Your task to perform on an android device: What's the news in Barbados? Image 0: 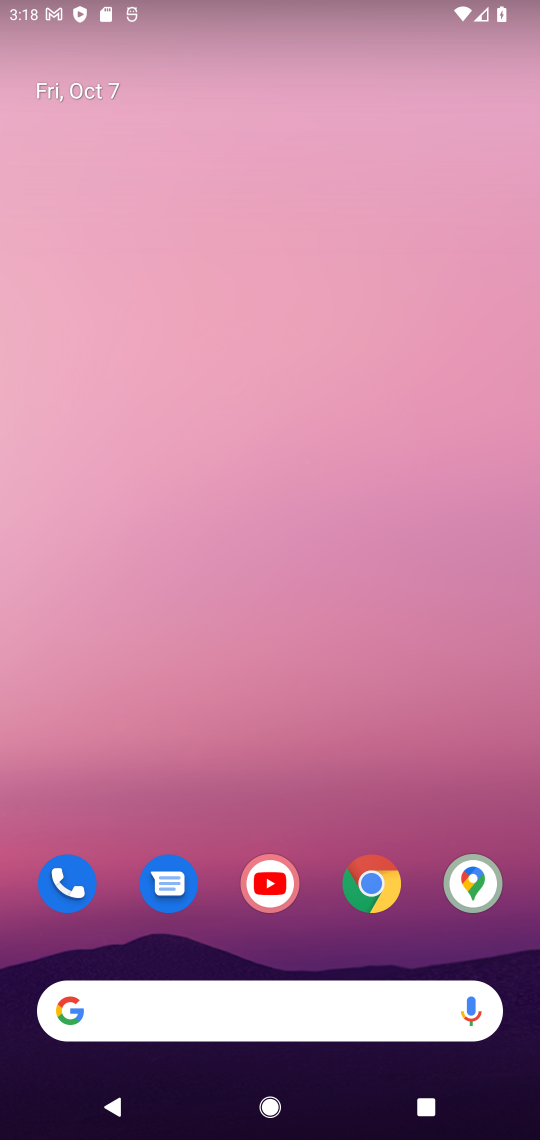
Step 0: click (367, 875)
Your task to perform on an android device: What's the news in Barbados? Image 1: 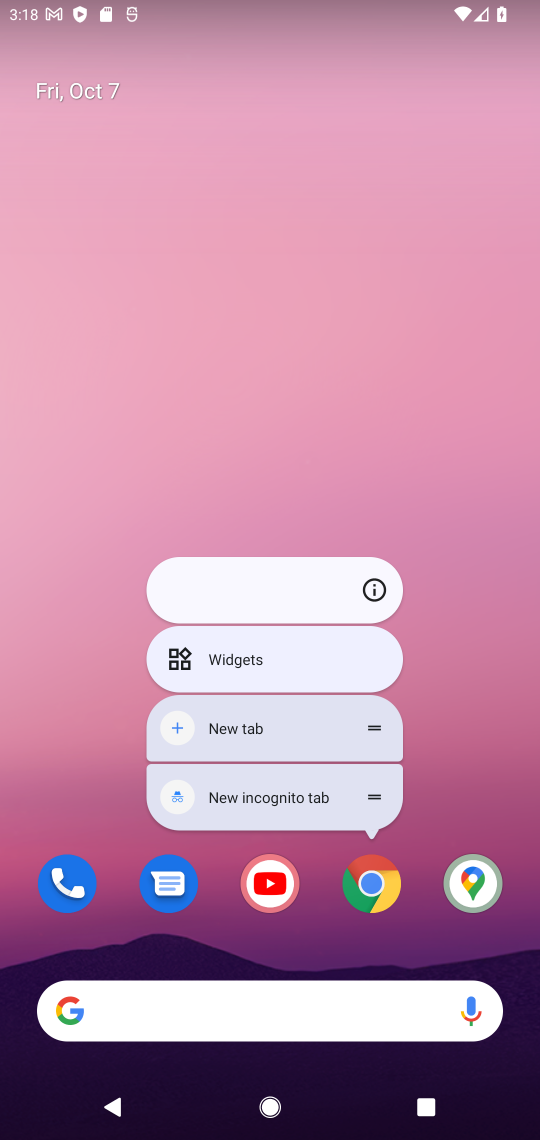
Step 1: click (367, 875)
Your task to perform on an android device: What's the news in Barbados? Image 2: 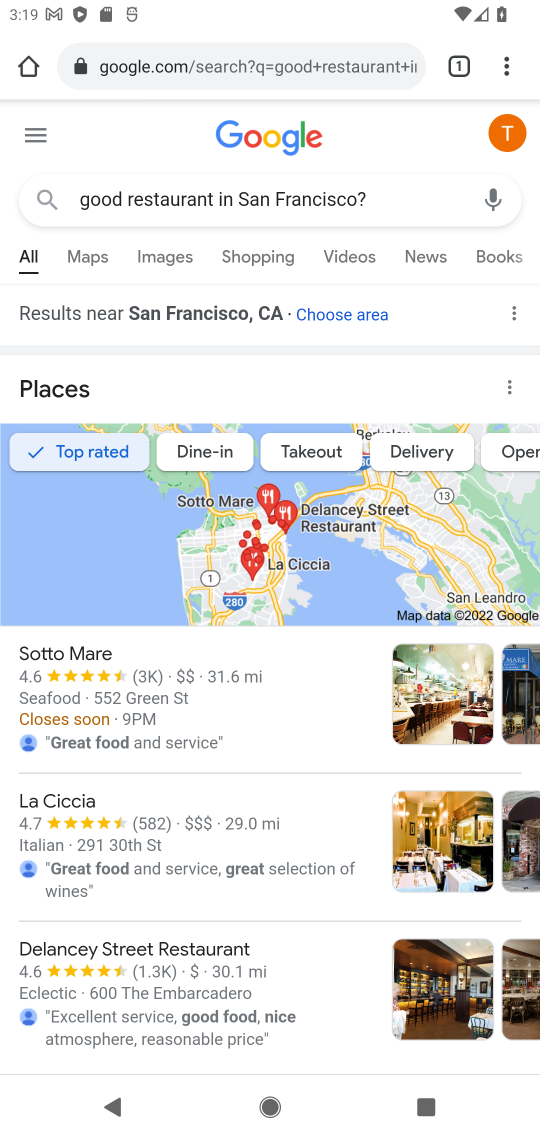
Step 2: click (384, 209)
Your task to perform on an android device: What's the news in Barbados? Image 3: 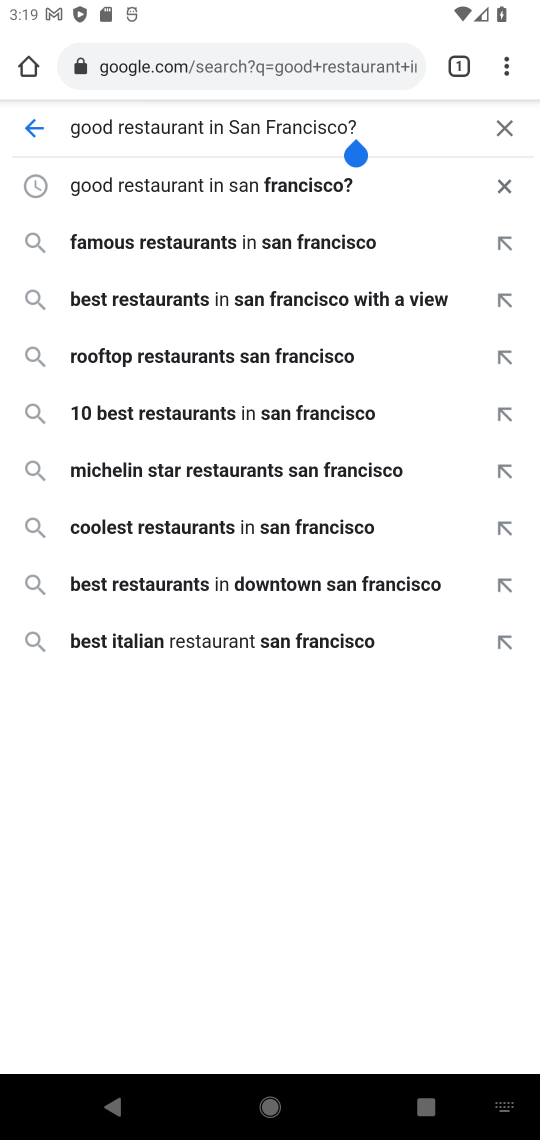
Step 3: click (510, 130)
Your task to perform on an android device: What's the news in Barbados? Image 4: 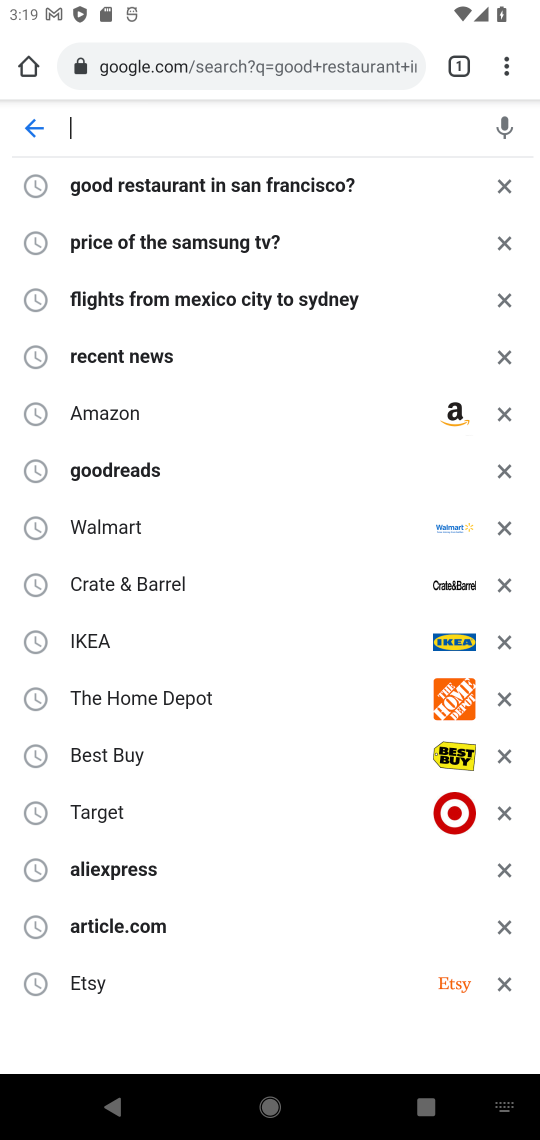
Step 4: type "news in Barbados?"
Your task to perform on an android device: What's the news in Barbados? Image 5: 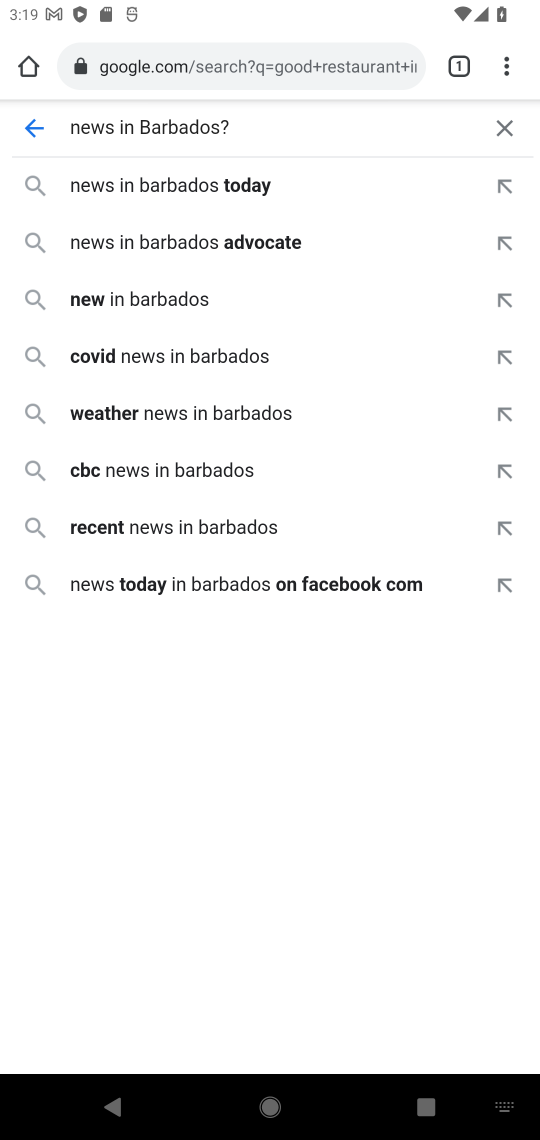
Step 5: press enter
Your task to perform on an android device: What's the news in Barbados? Image 6: 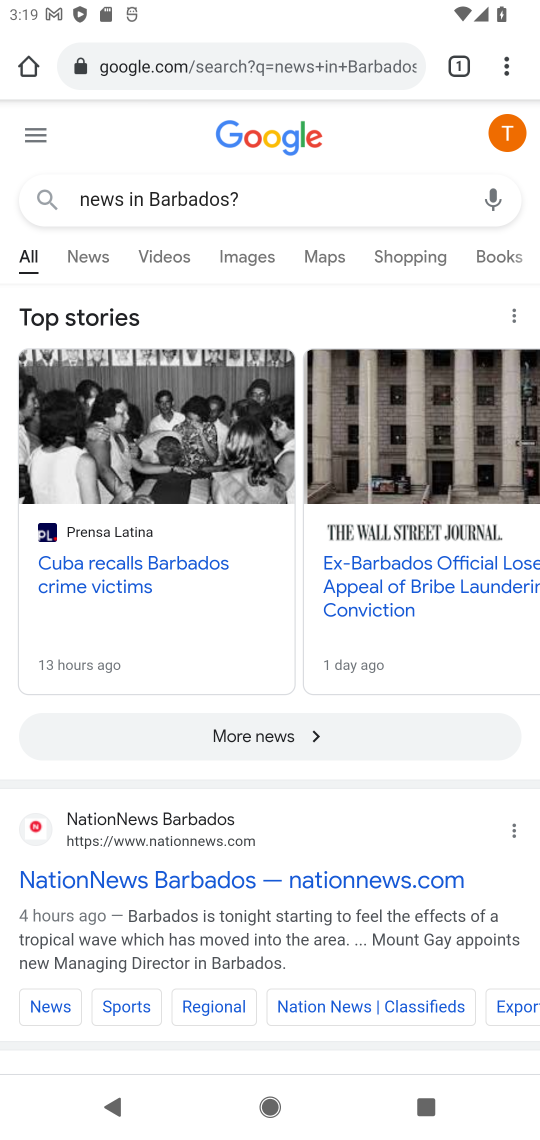
Step 6: task complete